Your task to perform on an android device: delete a single message in the gmail app Image 0: 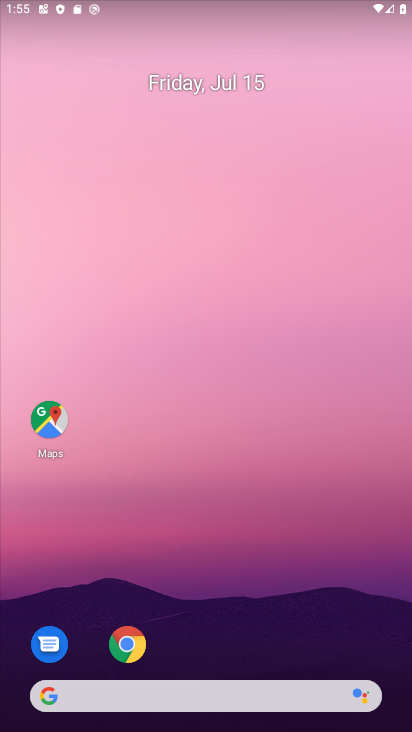
Step 0: drag from (44, 710) to (196, 311)
Your task to perform on an android device: delete a single message in the gmail app Image 1: 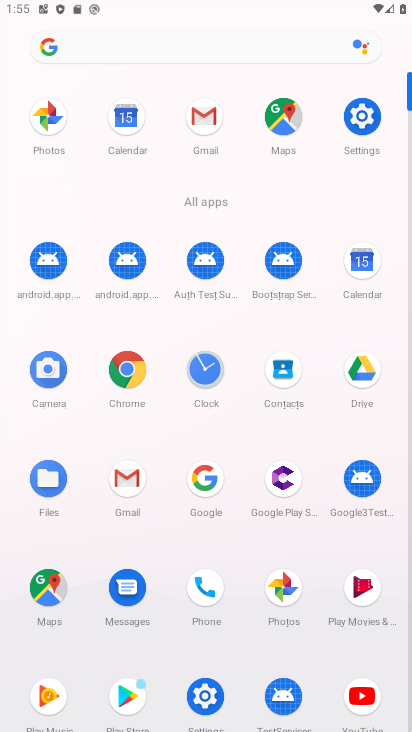
Step 1: click (127, 473)
Your task to perform on an android device: delete a single message in the gmail app Image 2: 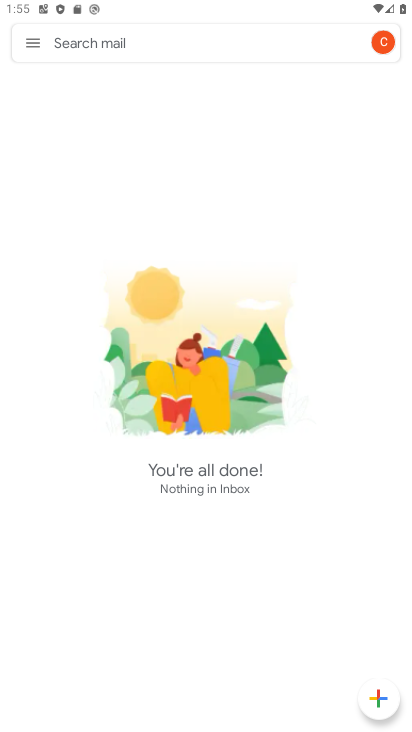
Step 2: click (28, 34)
Your task to perform on an android device: delete a single message in the gmail app Image 3: 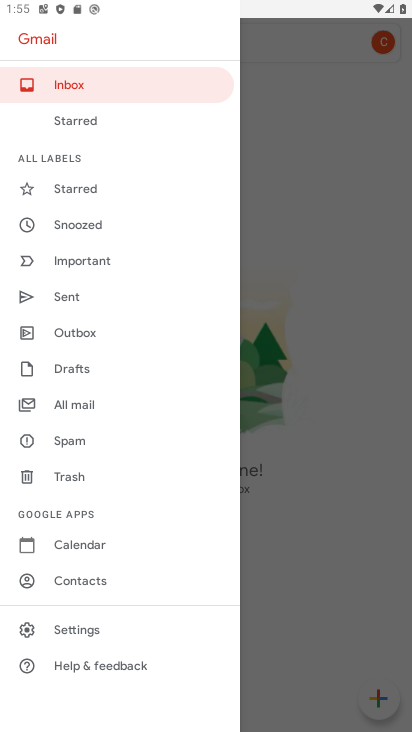
Step 3: click (89, 78)
Your task to perform on an android device: delete a single message in the gmail app Image 4: 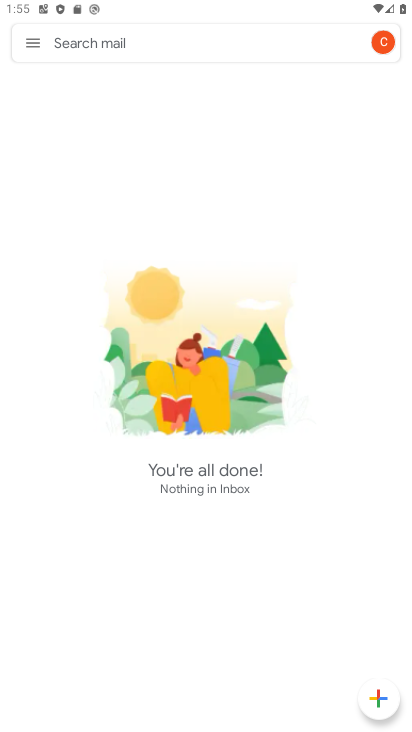
Step 4: task complete